Your task to perform on an android device: turn on javascript in the chrome app Image 0: 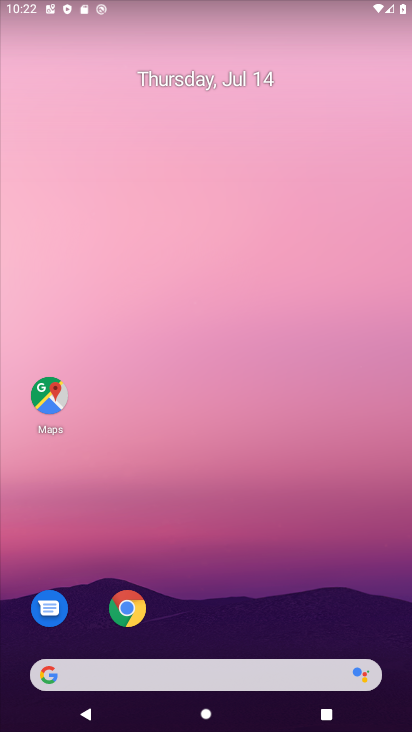
Step 0: click (129, 606)
Your task to perform on an android device: turn on javascript in the chrome app Image 1: 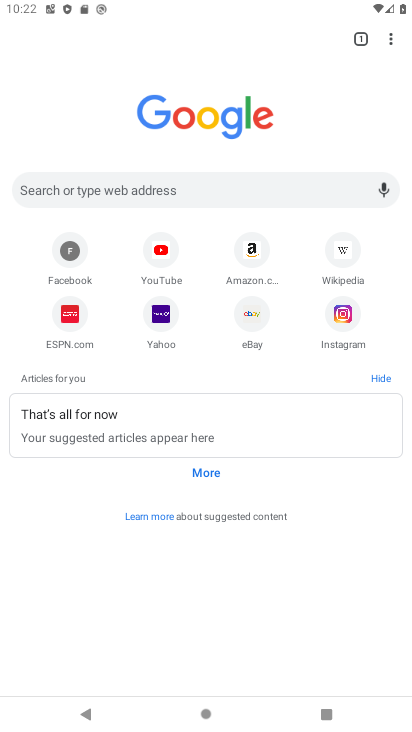
Step 1: click (391, 37)
Your task to perform on an android device: turn on javascript in the chrome app Image 2: 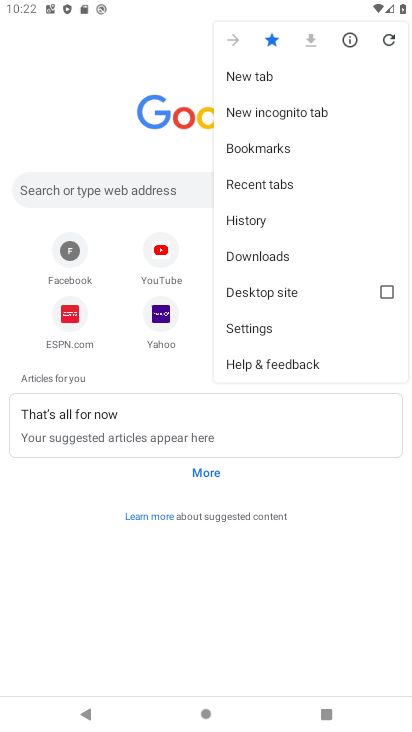
Step 2: click (247, 325)
Your task to perform on an android device: turn on javascript in the chrome app Image 3: 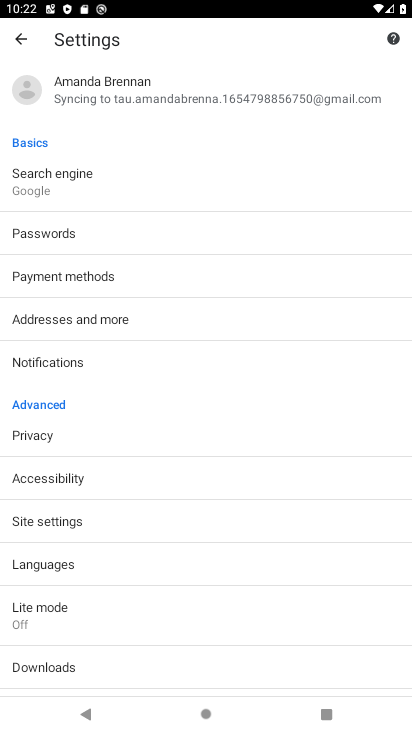
Step 3: click (51, 519)
Your task to perform on an android device: turn on javascript in the chrome app Image 4: 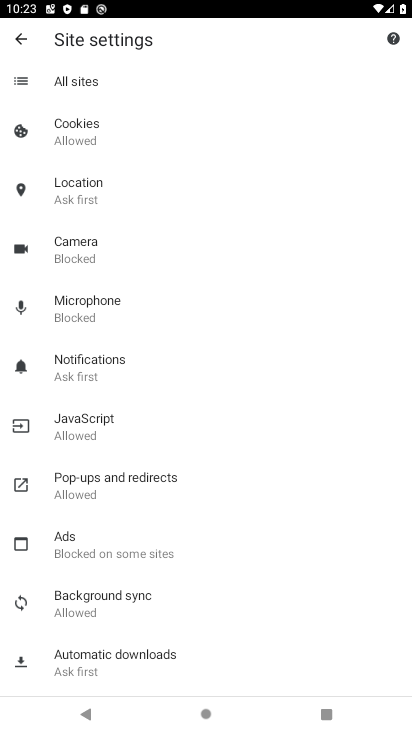
Step 4: click (62, 417)
Your task to perform on an android device: turn on javascript in the chrome app Image 5: 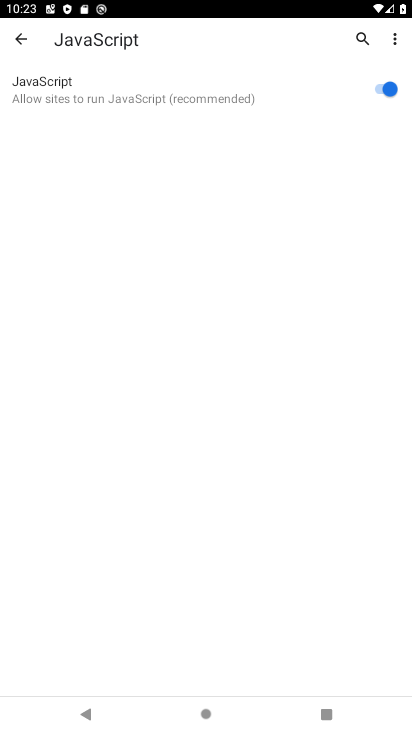
Step 5: task complete